Your task to perform on an android device: check data usage Image 0: 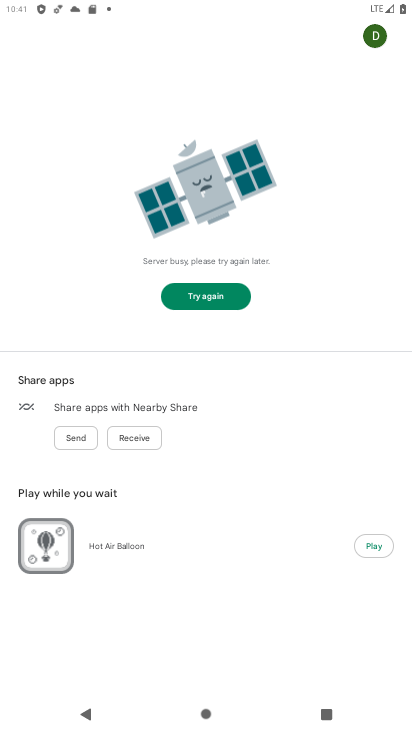
Step 0: press home button
Your task to perform on an android device: check data usage Image 1: 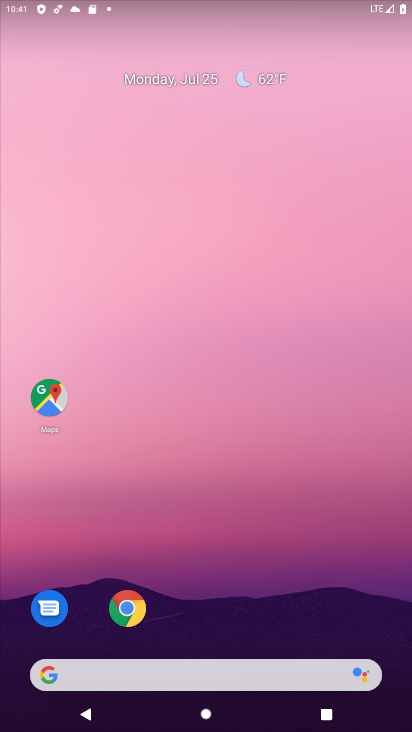
Step 1: drag from (241, 625) to (407, 506)
Your task to perform on an android device: check data usage Image 2: 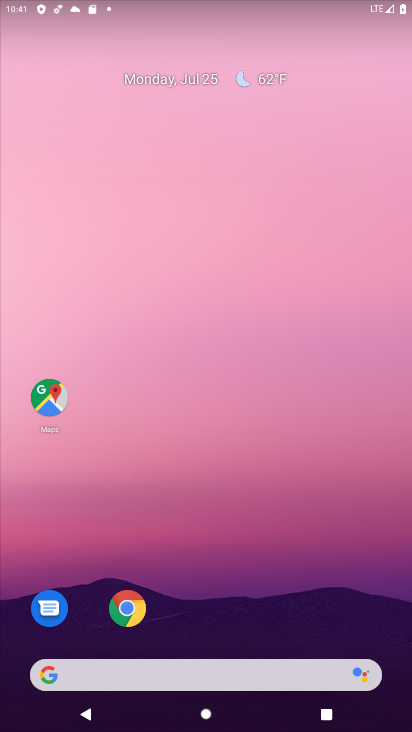
Step 2: drag from (191, 580) to (321, 25)
Your task to perform on an android device: check data usage Image 3: 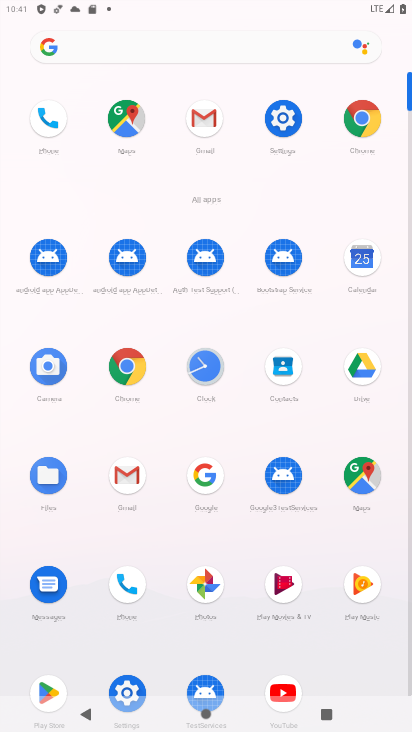
Step 3: click (133, 681)
Your task to perform on an android device: check data usage Image 4: 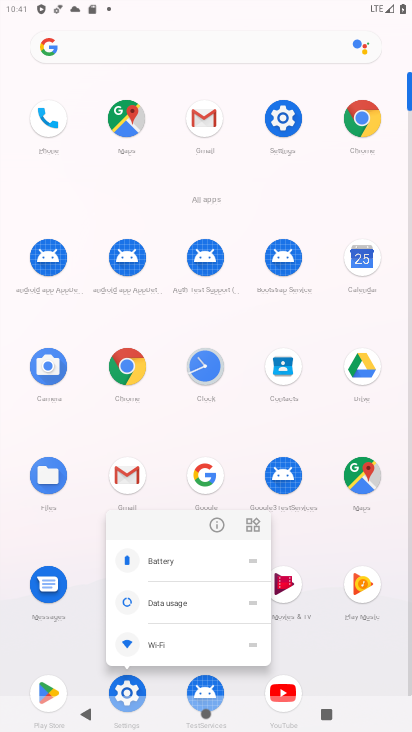
Step 4: click (137, 676)
Your task to perform on an android device: check data usage Image 5: 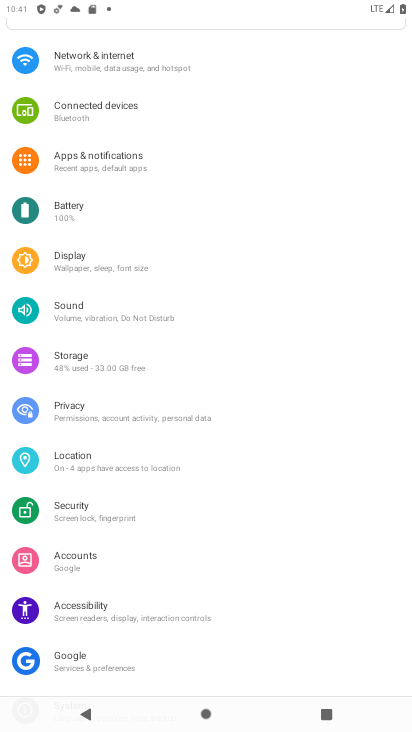
Step 5: click (100, 64)
Your task to perform on an android device: check data usage Image 6: 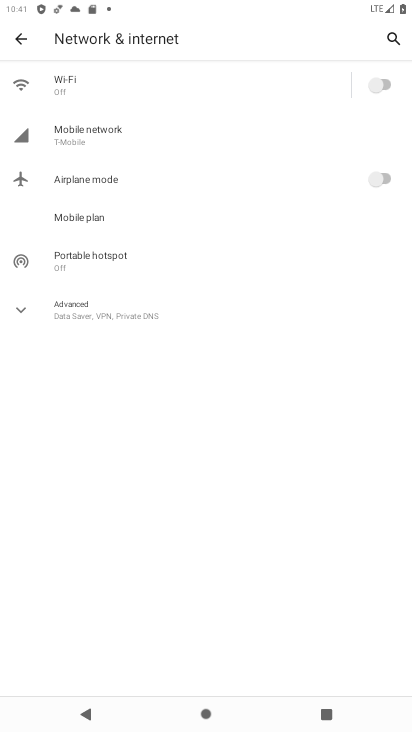
Step 6: click (87, 131)
Your task to perform on an android device: check data usage Image 7: 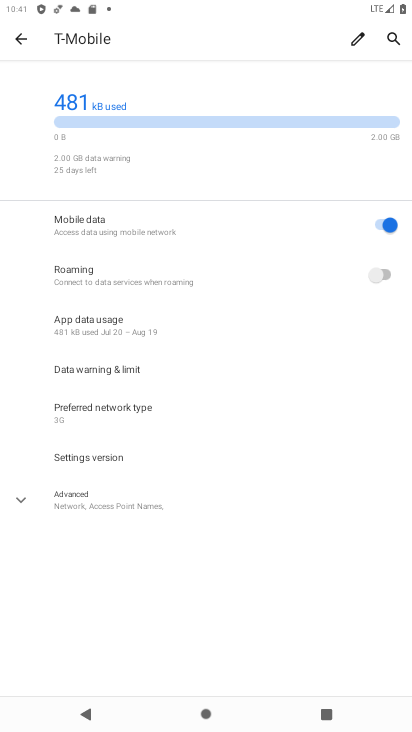
Step 7: click (100, 326)
Your task to perform on an android device: check data usage Image 8: 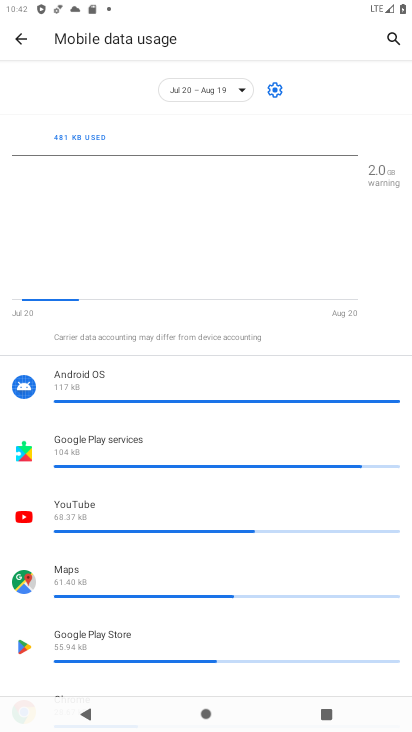
Step 8: task complete